Your task to perform on an android device: Open the web browser Image 0: 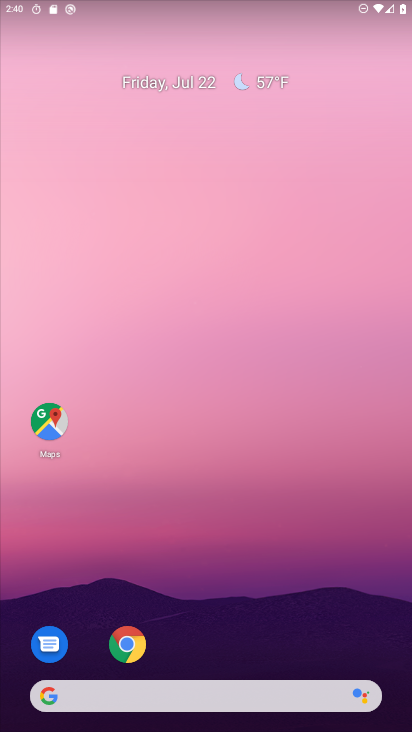
Step 0: click (125, 629)
Your task to perform on an android device: Open the web browser Image 1: 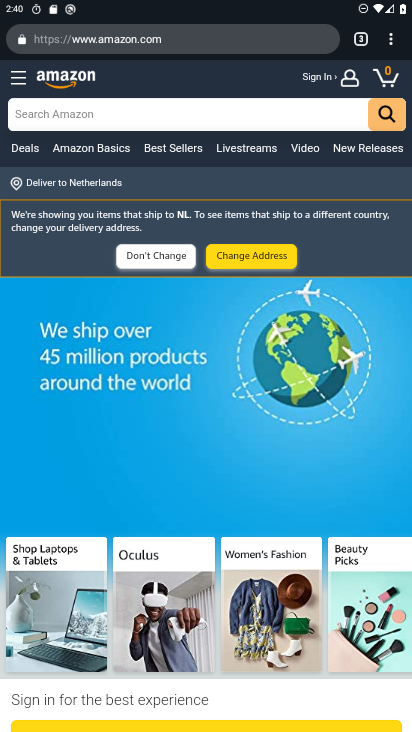
Step 1: task complete